Your task to perform on an android device: Open Google Chrome and click the shortcut for Amazon.com Image 0: 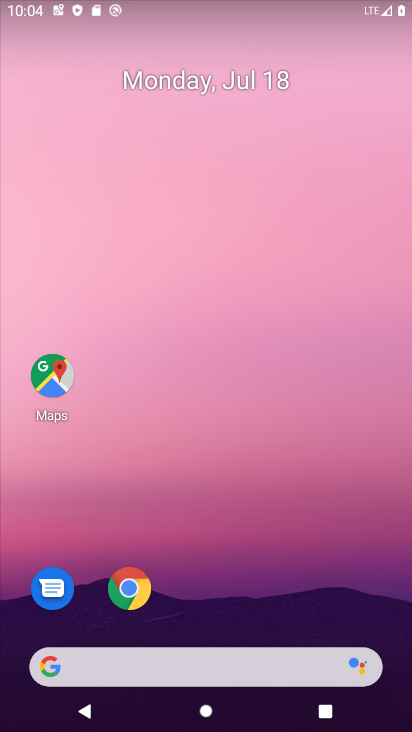
Step 0: click (253, 149)
Your task to perform on an android device: Open Google Chrome and click the shortcut for Amazon.com Image 1: 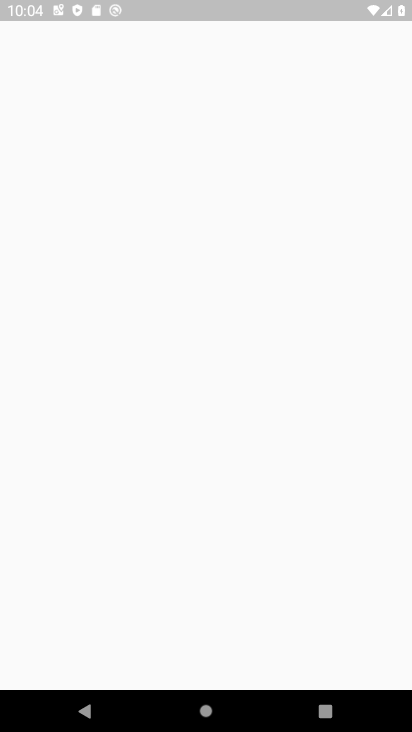
Step 1: press home button
Your task to perform on an android device: Open Google Chrome and click the shortcut for Amazon.com Image 2: 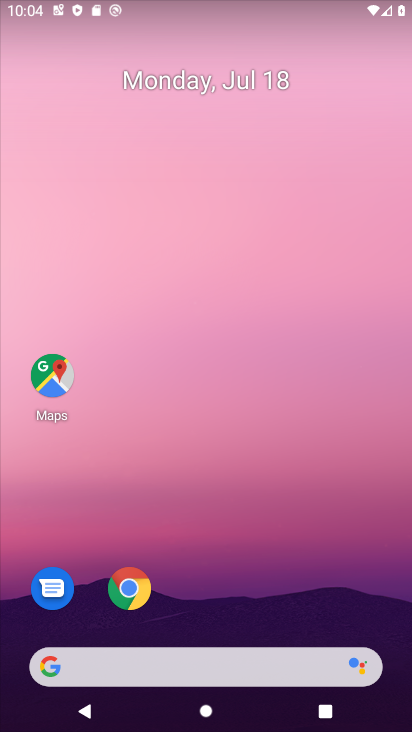
Step 2: drag from (242, 716) to (288, 74)
Your task to perform on an android device: Open Google Chrome and click the shortcut for Amazon.com Image 3: 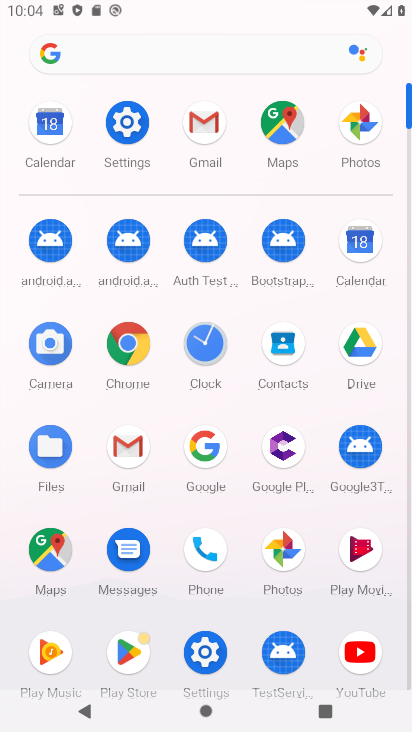
Step 3: click (126, 343)
Your task to perform on an android device: Open Google Chrome and click the shortcut for Amazon.com Image 4: 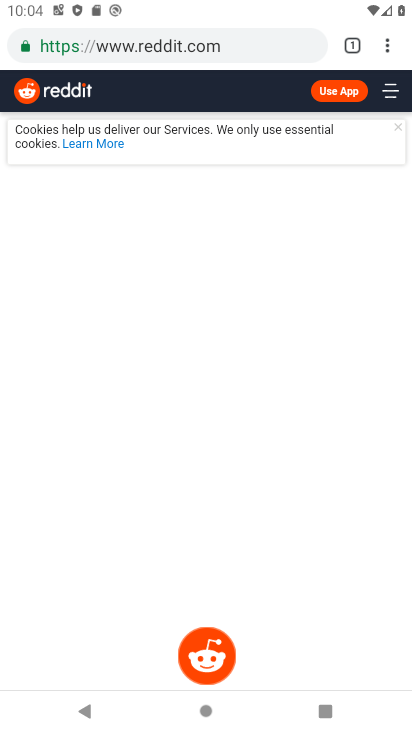
Step 4: click (384, 47)
Your task to perform on an android device: Open Google Chrome and click the shortcut for Amazon.com Image 5: 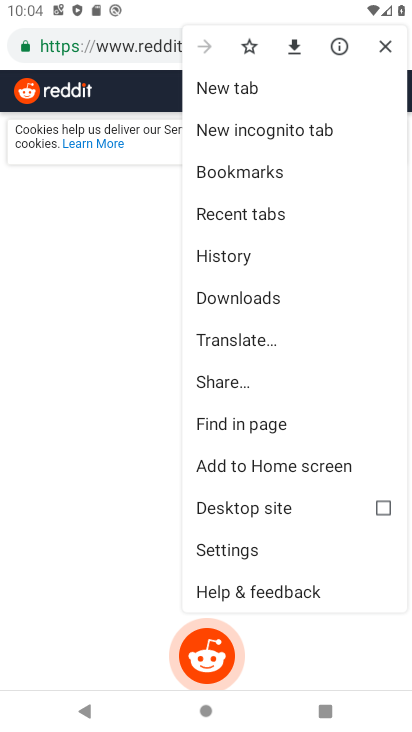
Step 5: click (247, 88)
Your task to perform on an android device: Open Google Chrome and click the shortcut for Amazon.com Image 6: 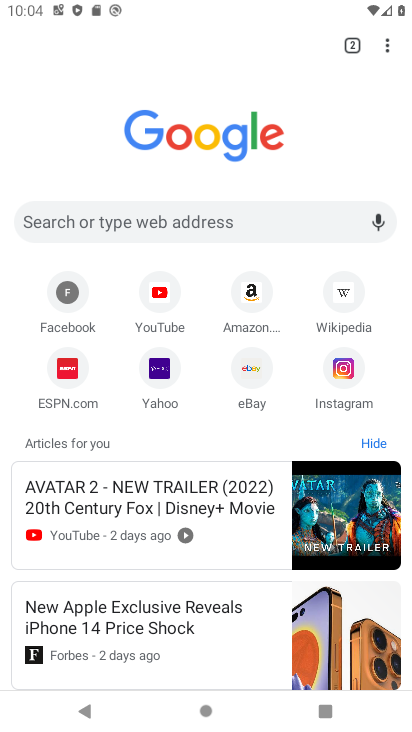
Step 6: click (251, 296)
Your task to perform on an android device: Open Google Chrome and click the shortcut for Amazon.com Image 7: 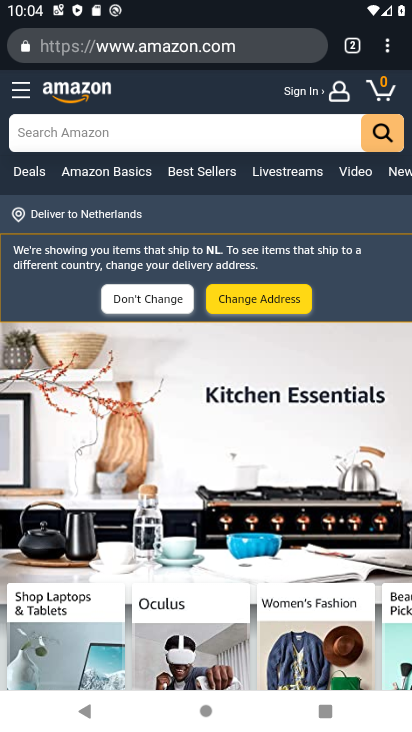
Step 7: task complete